Your task to perform on an android device: turn vacation reply on in the gmail app Image 0: 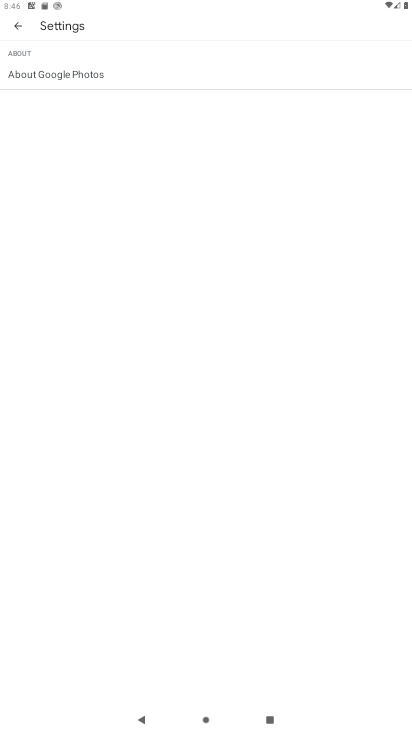
Step 0: press home button
Your task to perform on an android device: turn vacation reply on in the gmail app Image 1: 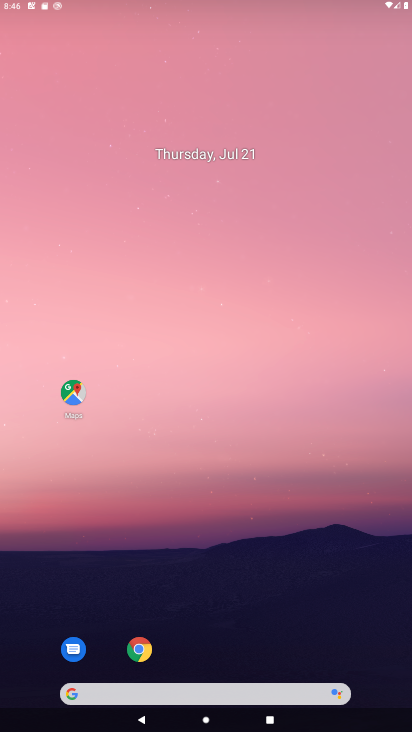
Step 1: drag from (187, 652) to (203, 115)
Your task to perform on an android device: turn vacation reply on in the gmail app Image 2: 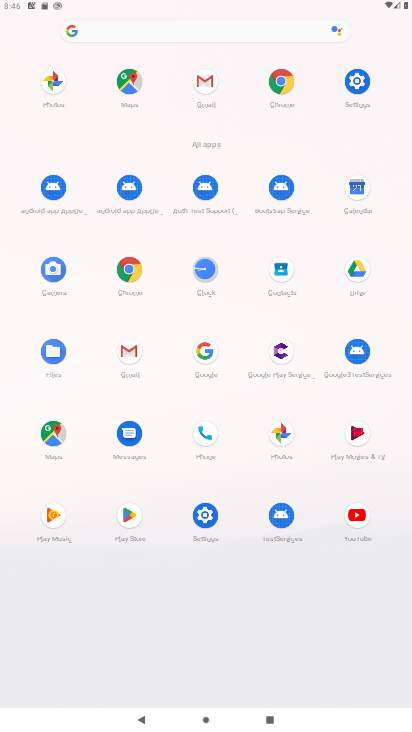
Step 2: click (202, 75)
Your task to perform on an android device: turn vacation reply on in the gmail app Image 3: 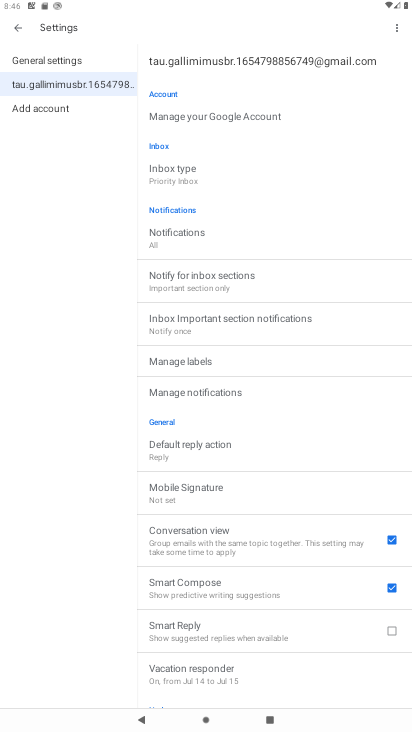
Step 3: click (224, 682)
Your task to perform on an android device: turn vacation reply on in the gmail app Image 4: 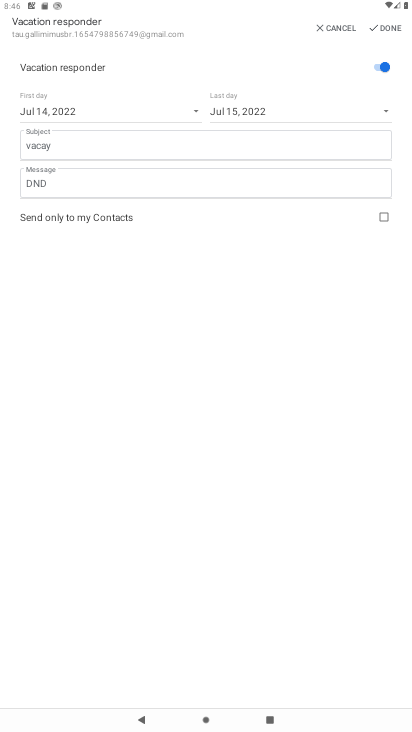
Step 4: task complete